Your task to perform on an android device: check battery use Image 0: 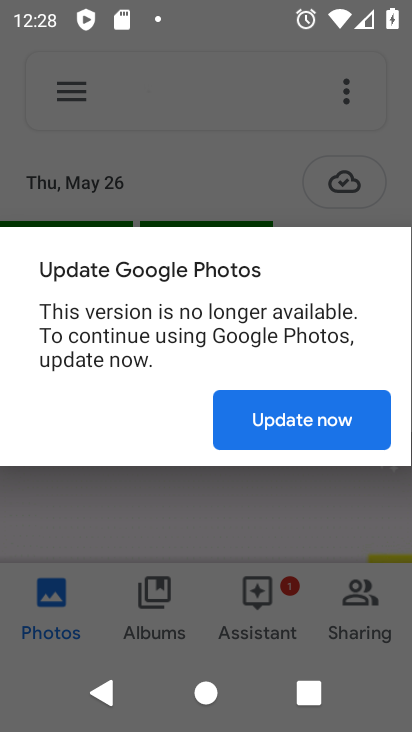
Step 0: press home button
Your task to perform on an android device: check battery use Image 1: 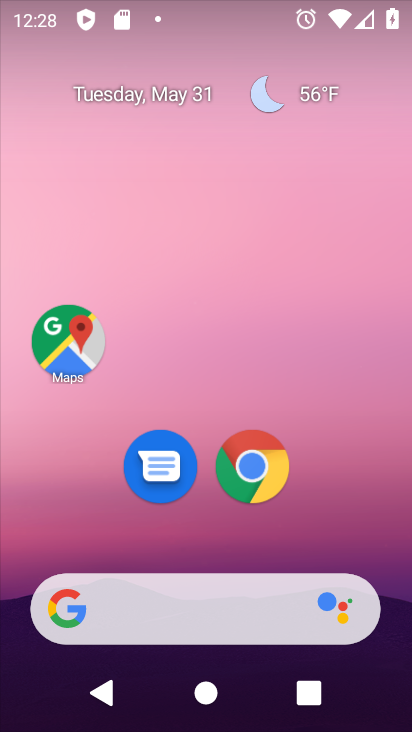
Step 1: drag from (191, 603) to (201, 220)
Your task to perform on an android device: check battery use Image 2: 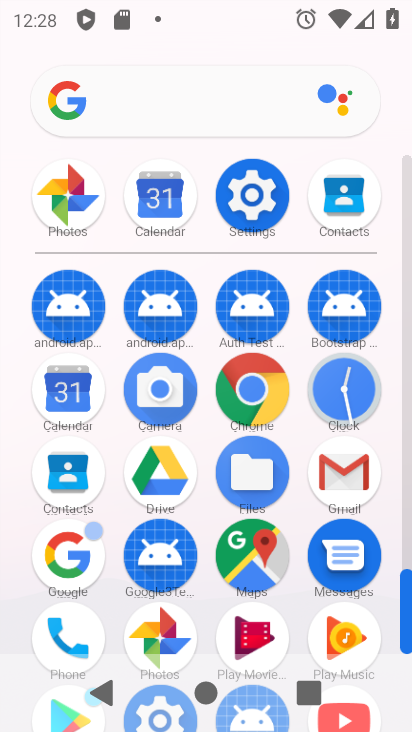
Step 2: click (266, 209)
Your task to perform on an android device: check battery use Image 3: 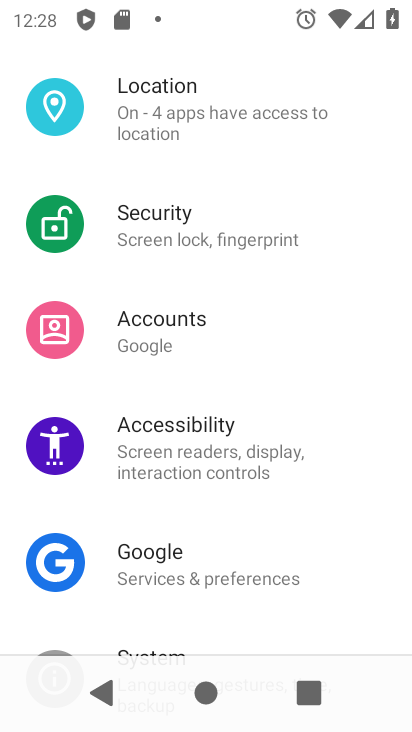
Step 3: drag from (215, 75) to (192, 594)
Your task to perform on an android device: check battery use Image 4: 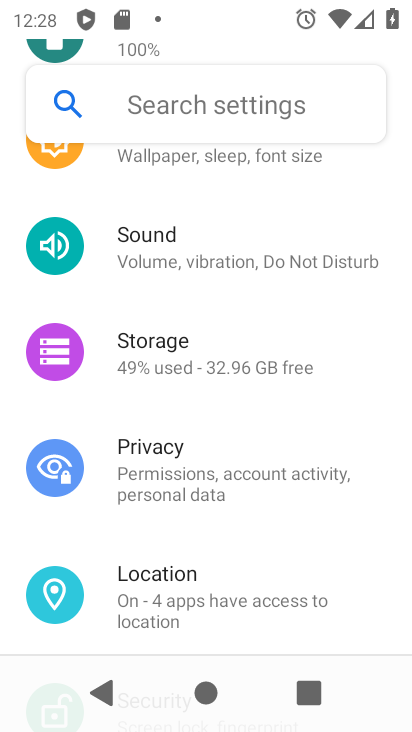
Step 4: drag from (177, 261) to (180, 557)
Your task to perform on an android device: check battery use Image 5: 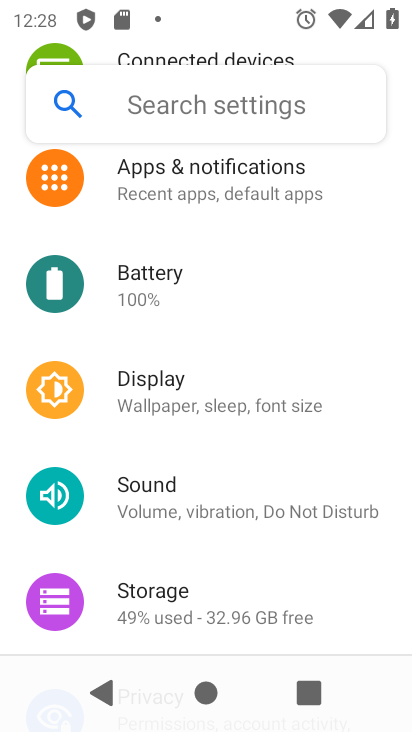
Step 5: click (158, 300)
Your task to perform on an android device: check battery use Image 6: 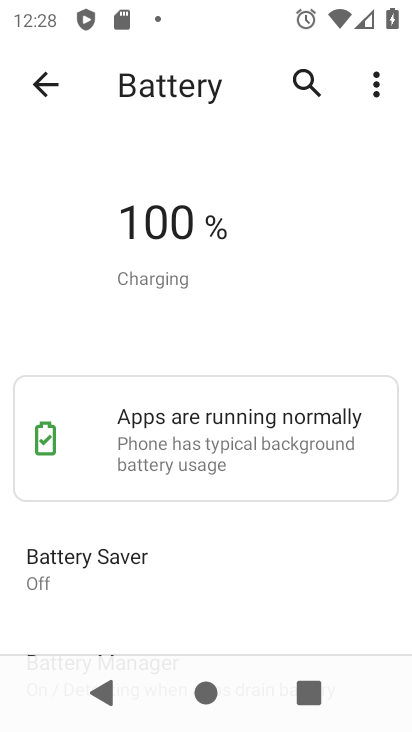
Step 6: click (379, 88)
Your task to perform on an android device: check battery use Image 7: 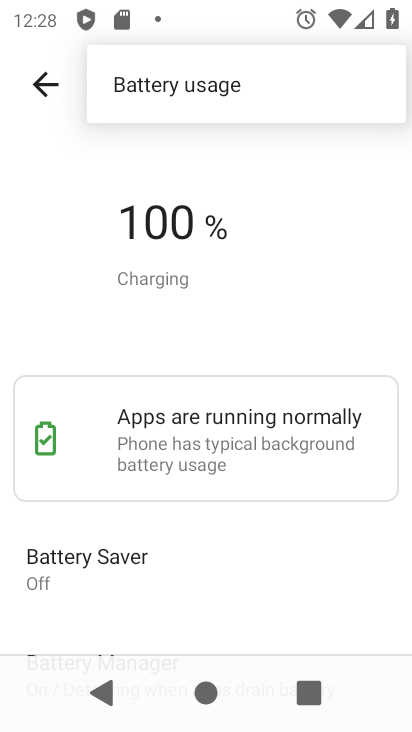
Step 7: click (290, 85)
Your task to perform on an android device: check battery use Image 8: 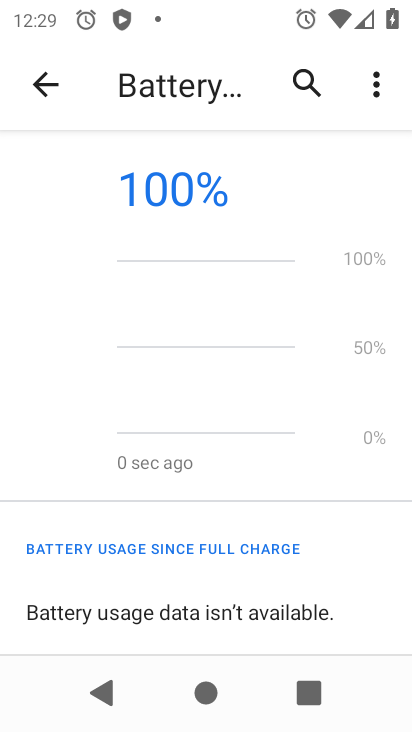
Step 8: task complete